Your task to perform on an android device: toggle pop-ups in chrome Image 0: 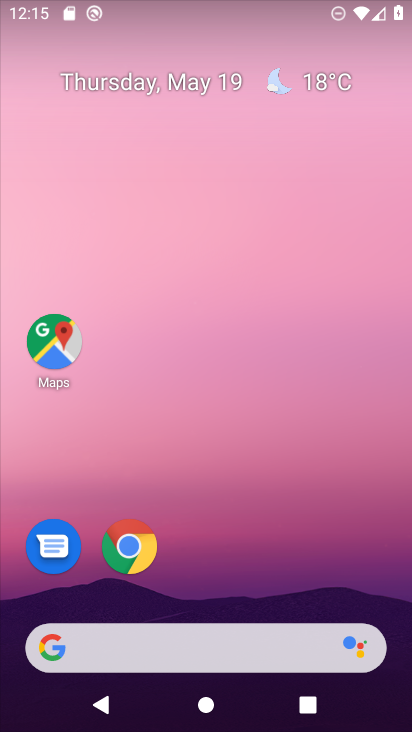
Step 0: click (126, 541)
Your task to perform on an android device: toggle pop-ups in chrome Image 1: 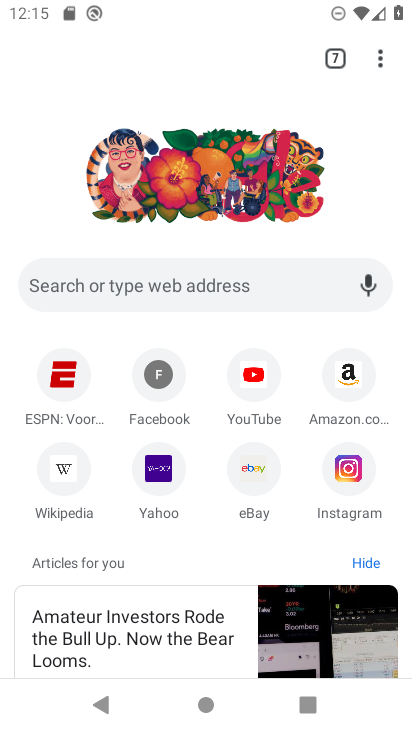
Step 1: click (379, 63)
Your task to perform on an android device: toggle pop-ups in chrome Image 2: 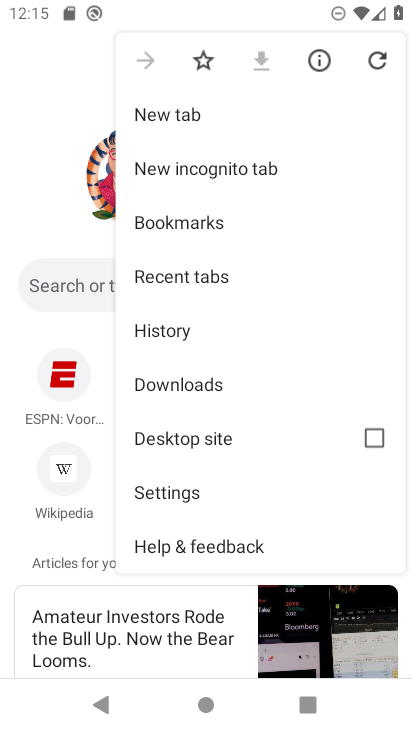
Step 2: click (161, 488)
Your task to perform on an android device: toggle pop-ups in chrome Image 3: 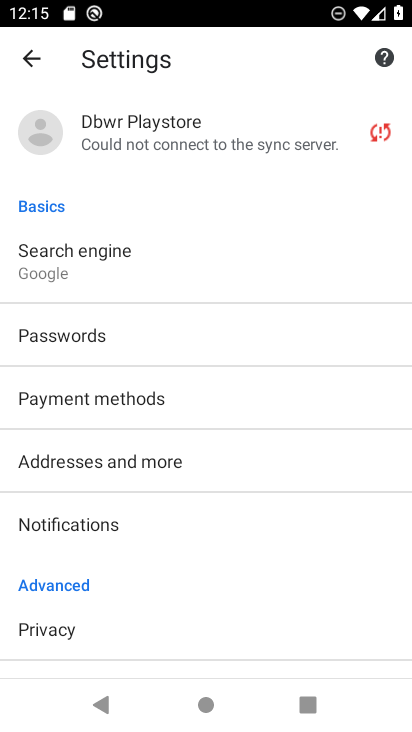
Step 3: drag from (110, 618) to (109, 442)
Your task to perform on an android device: toggle pop-ups in chrome Image 4: 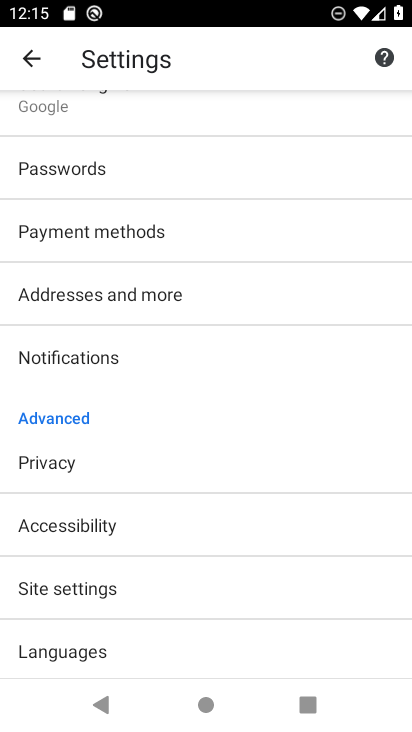
Step 4: click (77, 595)
Your task to perform on an android device: toggle pop-ups in chrome Image 5: 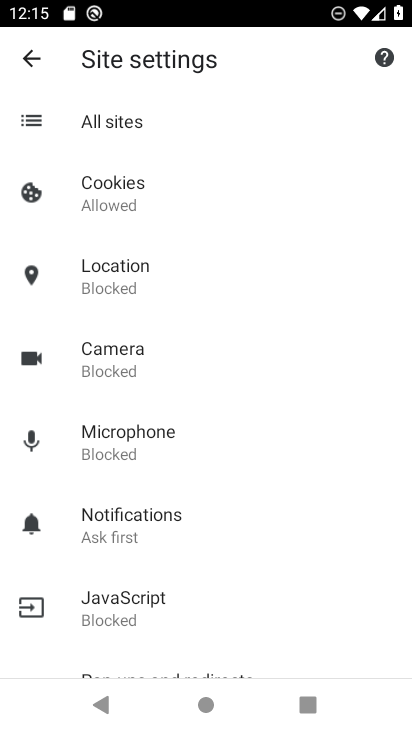
Step 5: drag from (145, 616) to (148, 345)
Your task to perform on an android device: toggle pop-ups in chrome Image 6: 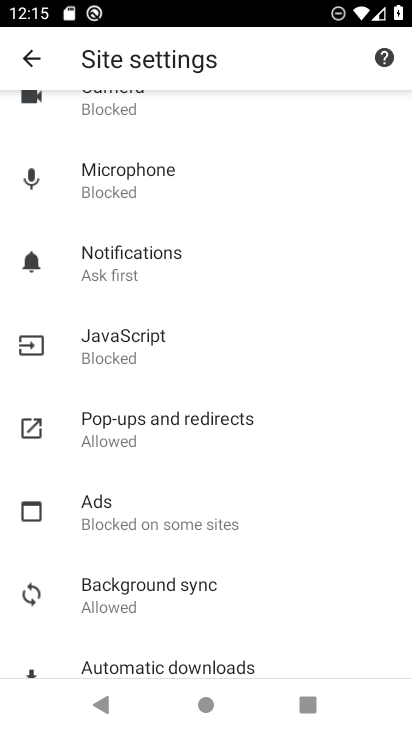
Step 6: click (124, 427)
Your task to perform on an android device: toggle pop-ups in chrome Image 7: 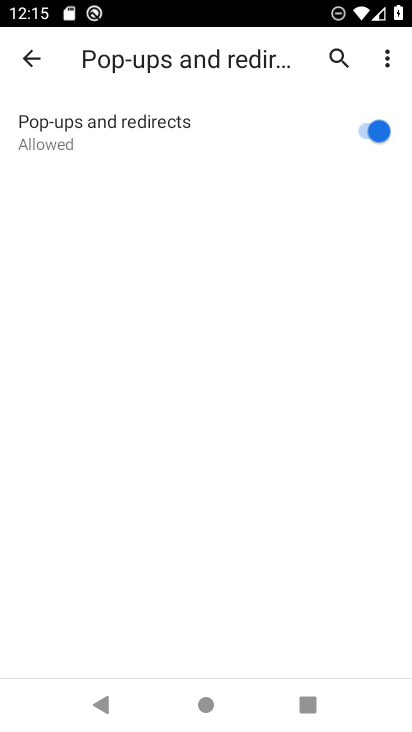
Step 7: click (363, 126)
Your task to perform on an android device: toggle pop-ups in chrome Image 8: 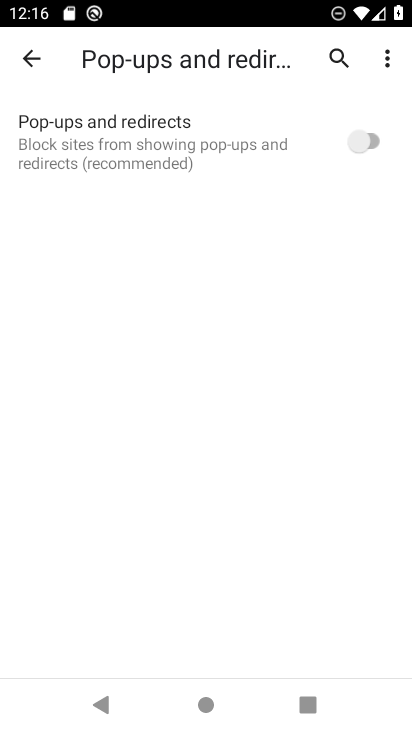
Step 8: task complete